Your task to perform on an android device: toggle wifi Image 0: 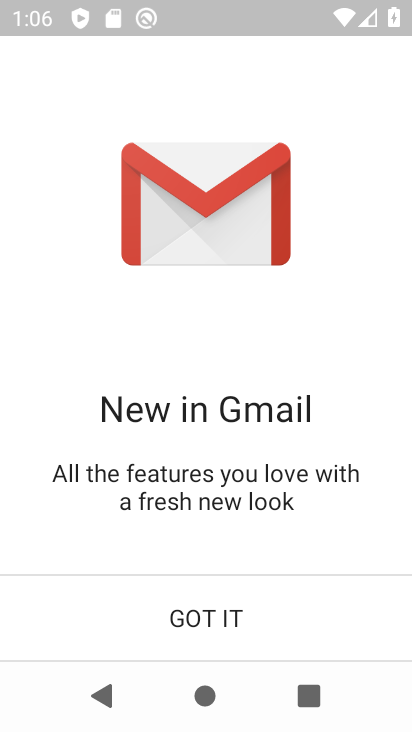
Step 0: press home button
Your task to perform on an android device: toggle wifi Image 1: 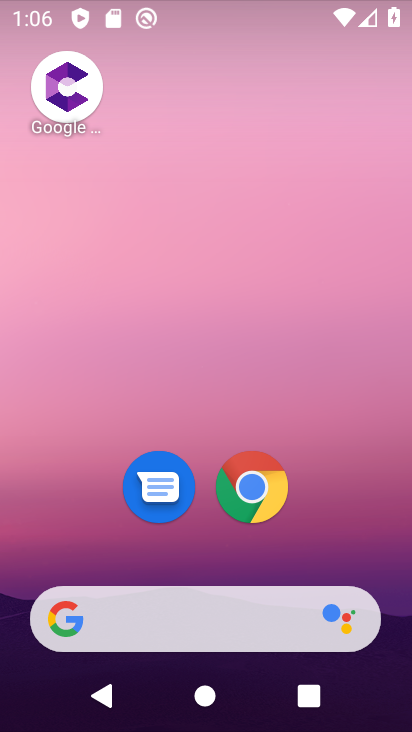
Step 1: drag from (185, 14) to (168, 584)
Your task to perform on an android device: toggle wifi Image 2: 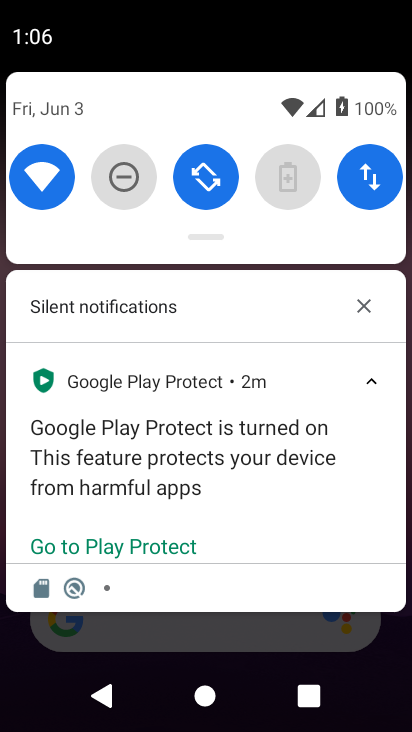
Step 2: click (28, 182)
Your task to perform on an android device: toggle wifi Image 3: 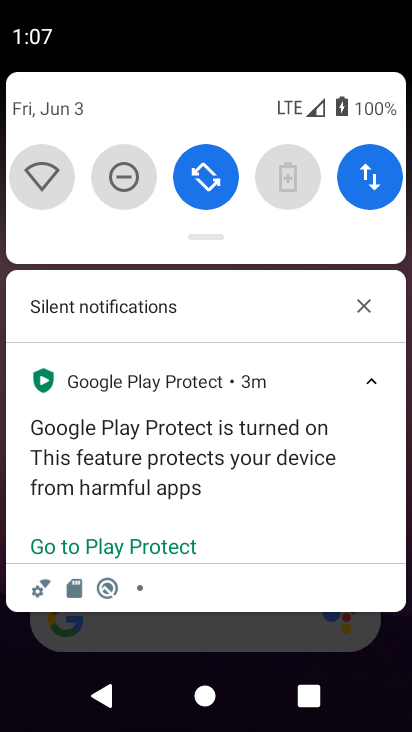
Step 3: task complete